Your task to perform on an android device: Search for pizza restaurants on Maps Image 0: 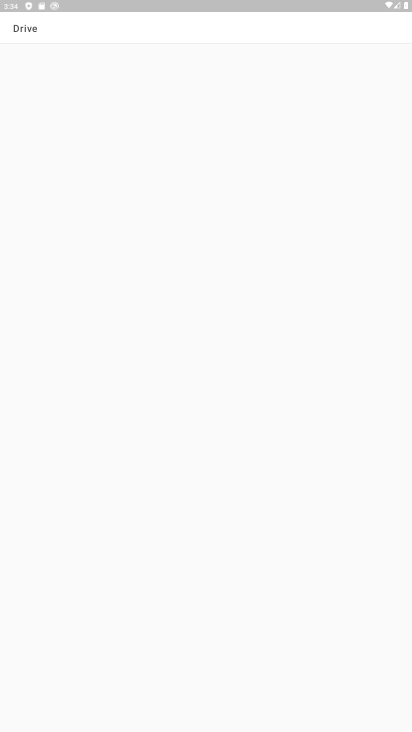
Step 0: press home button
Your task to perform on an android device: Search for pizza restaurants on Maps Image 1: 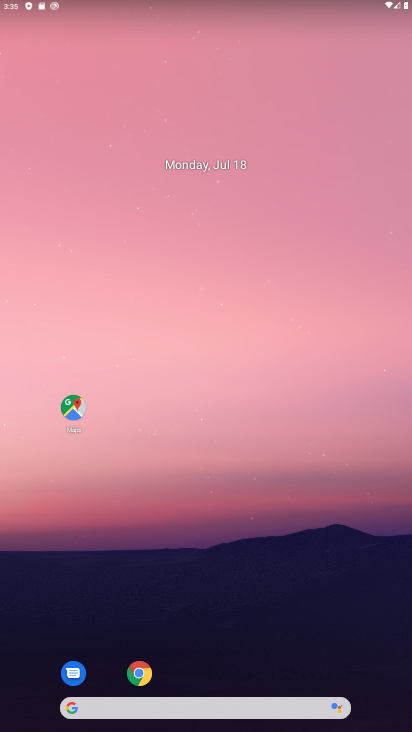
Step 1: drag from (386, 607) to (308, 2)
Your task to perform on an android device: Search for pizza restaurants on Maps Image 2: 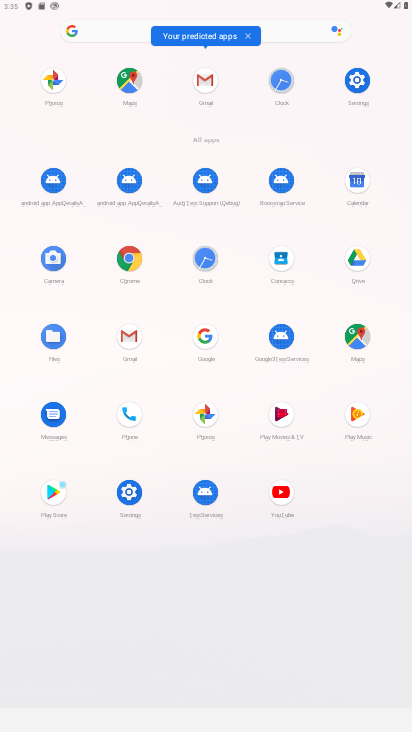
Step 2: click (127, 90)
Your task to perform on an android device: Search for pizza restaurants on Maps Image 3: 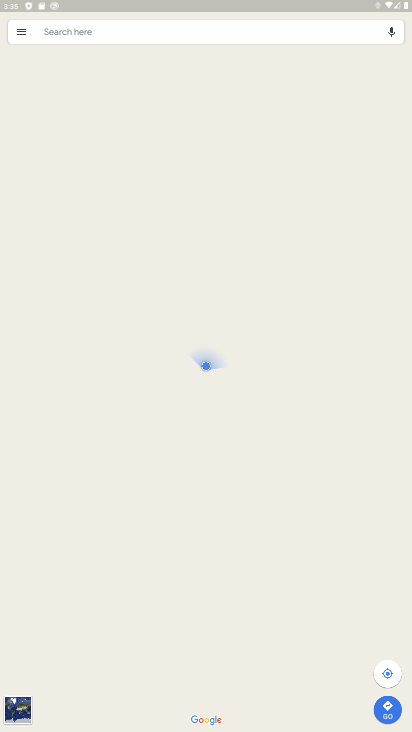
Step 3: click (185, 22)
Your task to perform on an android device: Search for pizza restaurants on Maps Image 4: 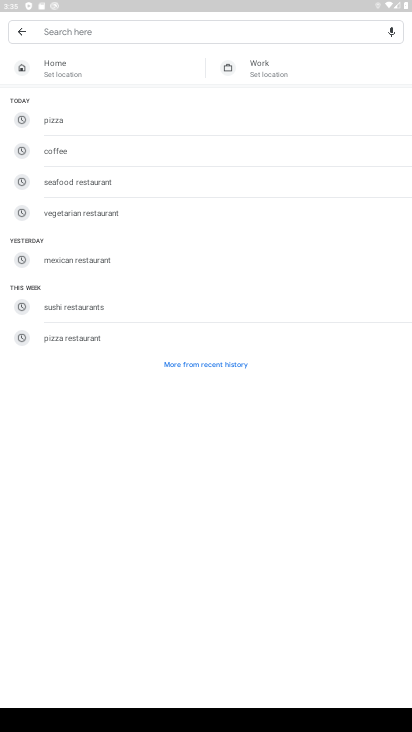
Step 4: click (95, 340)
Your task to perform on an android device: Search for pizza restaurants on Maps Image 5: 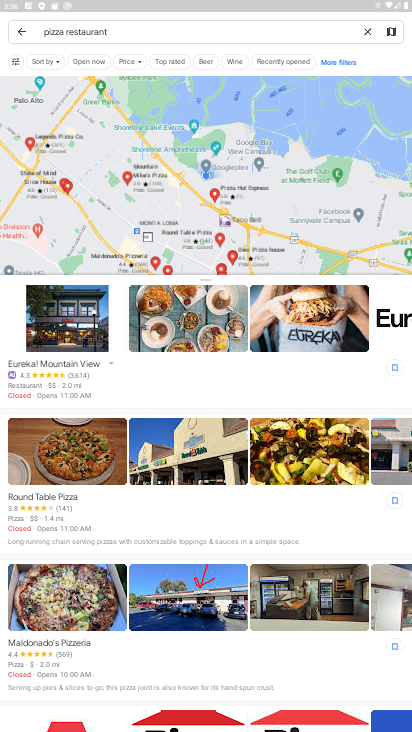
Step 5: task complete